Your task to perform on an android device: find which apps use the phone's location Image 0: 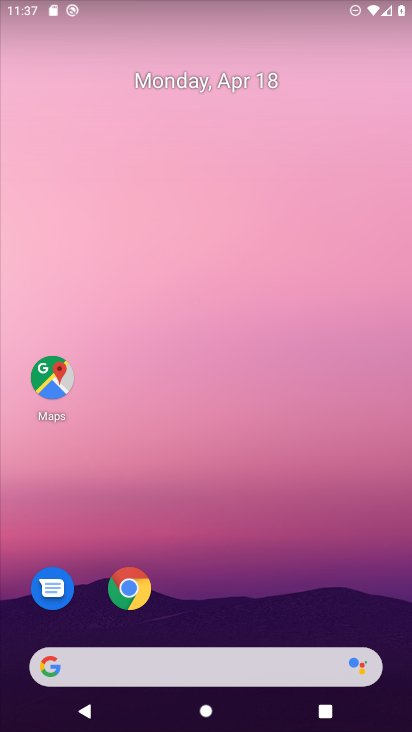
Step 0: drag from (366, 590) to (269, 38)
Your task to perform on an android device: find which apps use the phone's location Image 1: 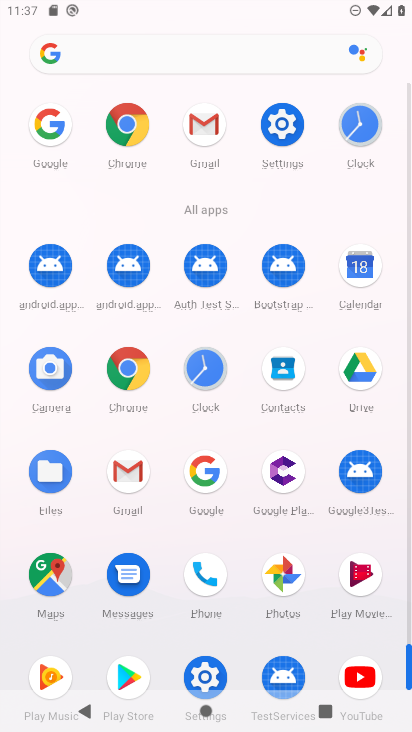
Step 1: drag from (10, 526) to (10, 288)
Your task to perform on an android device: find which apps use the phone's location Image 2: 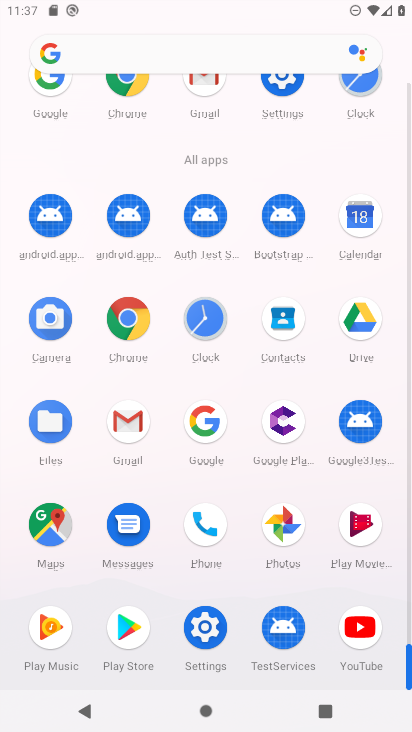
Step 2: click (202, 614)
Your task to perform on an android device: find which apps use the phone's location Image 3: 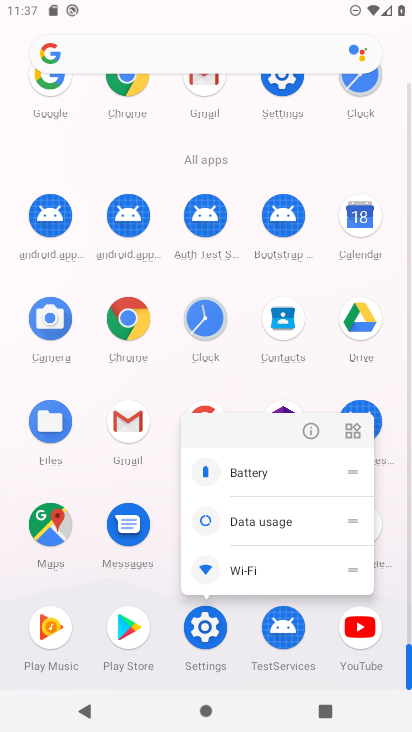
Step 3: click (201, 626)
Your task to perform on an android device: find which apps use the phone's location Image 4: 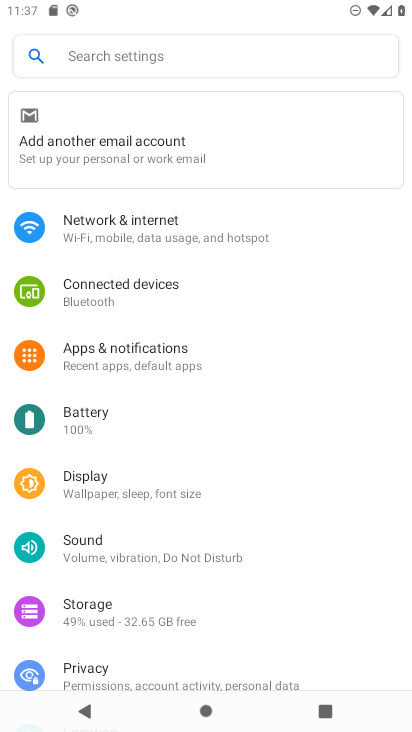
Step 4: click (166, 344)
Your task to perform on an android device: find which apps use the phone's location Image 5: 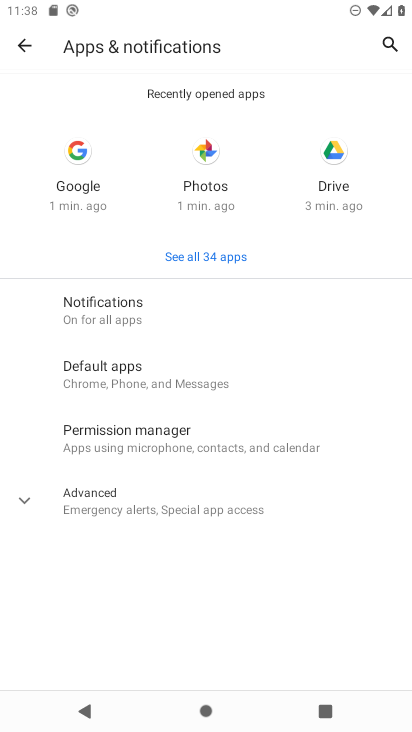
Step 5: click (24, 45)
Your task to perform on an android device: find which apps use the phone's location Image 6: 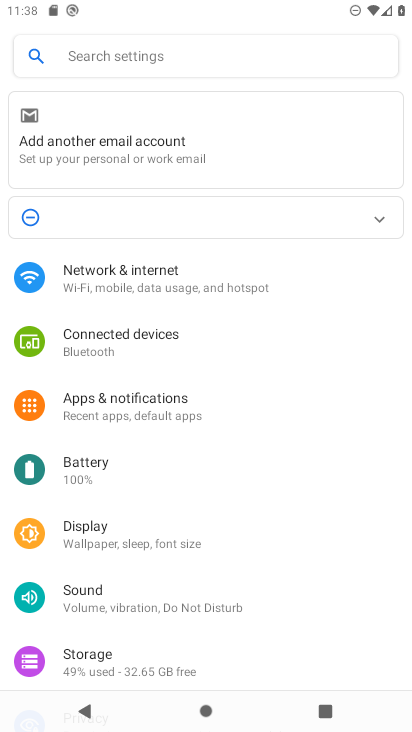
Step 6: drag from (308, 495) to (282, 209)
Your task to perform on an android device: find which apps use the phone's location Image 7: 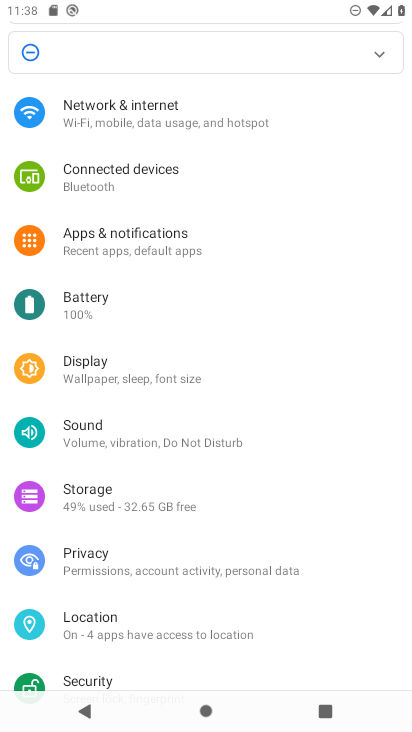
Step 7: click (189, 635)
Your task to perform on an android device: find which apps use the phone's location Image 8: 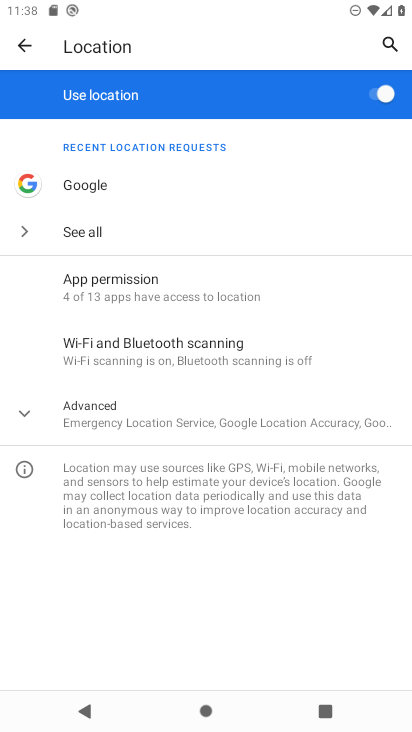
Step 8: click (180, 276)
Your task to perform on an android device: find which apps use the phone's location Image 9: 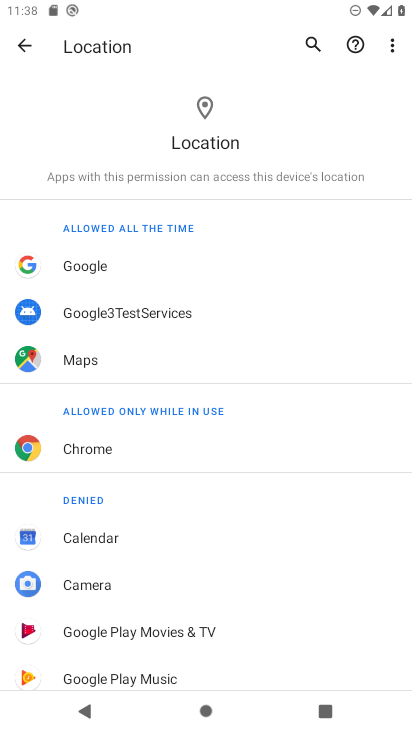
Step 9: task complete